Your task to perform on an android device: set default search engine in the chrome app Image 0: 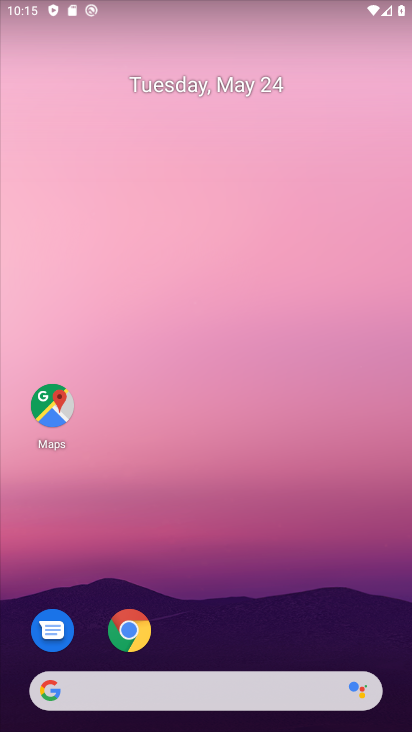
Step 0: click (120, 628)
Your task to perform on an android device: set default search engine in the chrome app Image 1: 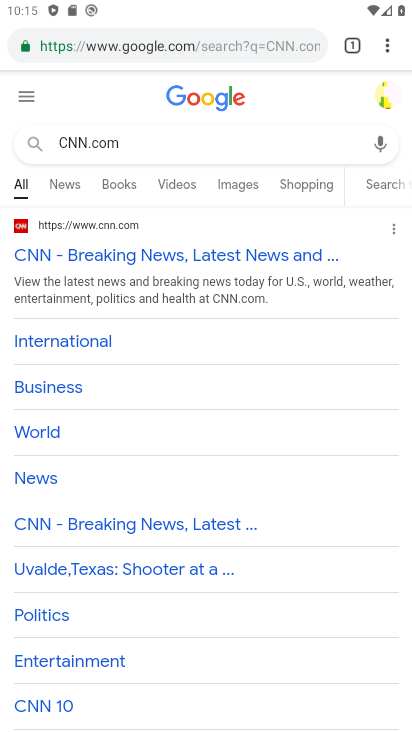
Step 1: click (386, 44)
Your task to perform on an android device: set default search engine in the chrome app Image 2: 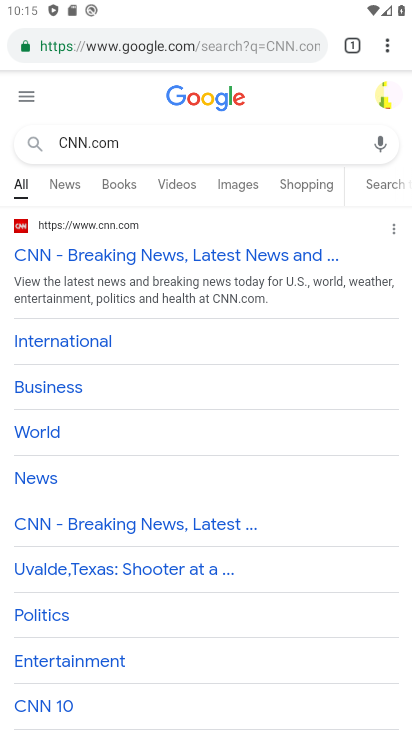
Step 2: click (388, 44)
Your task to perform on an android device: set default search engine in the chrome app Image 3: 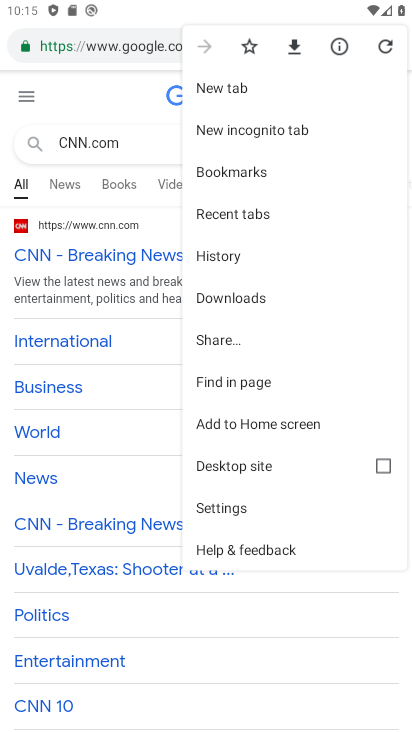
Step 3: click (251, 504)
Your task to perform on an android device: set default search engine in the chrome app Image 4: 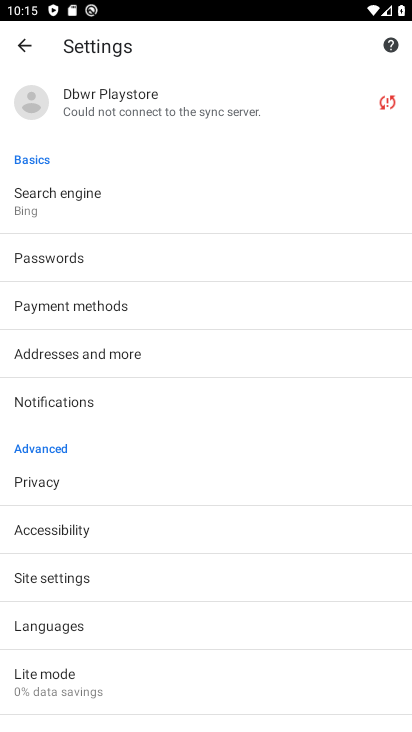
Step 4: click (95, 194)
Your task to perform on an android device: set default search engine in the chrome app Image 5: 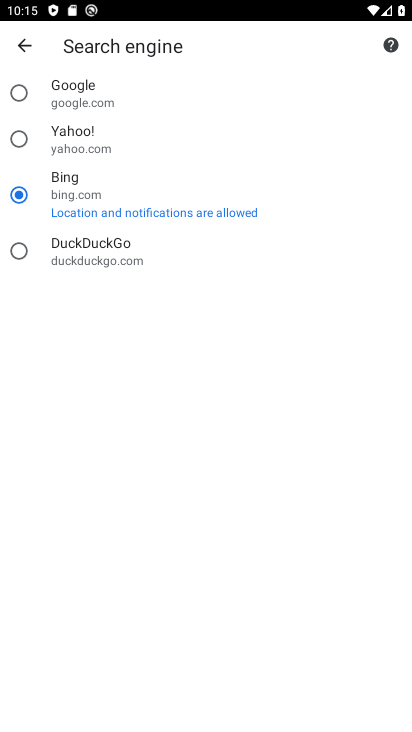
Step 5: click (15, 90)
Your task to perform on an android device: set default search engine in the chrome app Image 6: 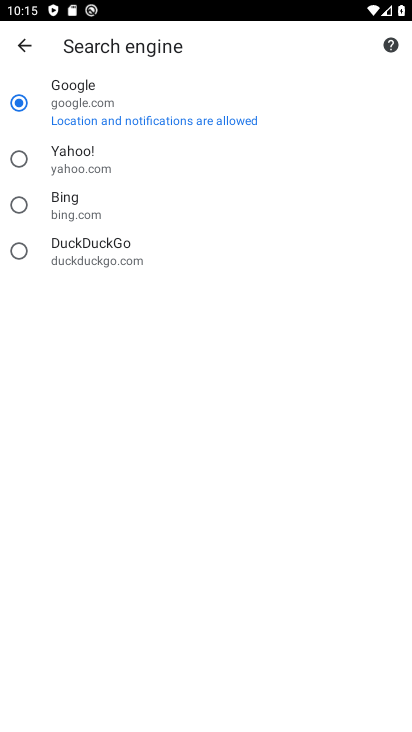
Step 6: task complete